Your task to perform on an android device: Open Google Chrome Image 0: 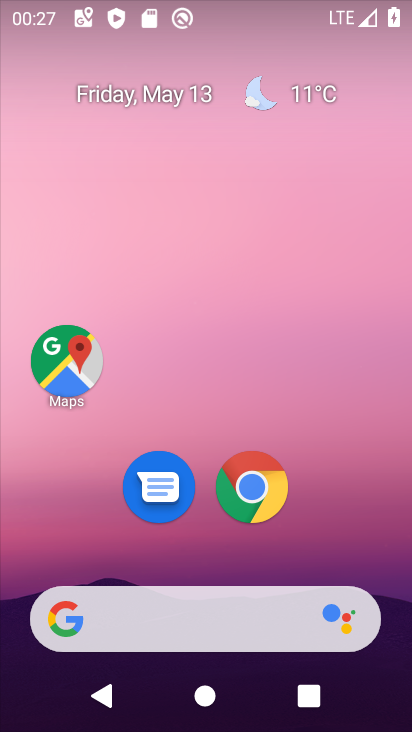
Step 0: click (261, 491)
Your task to perform on an android device: Open Google Chrome Image 1: 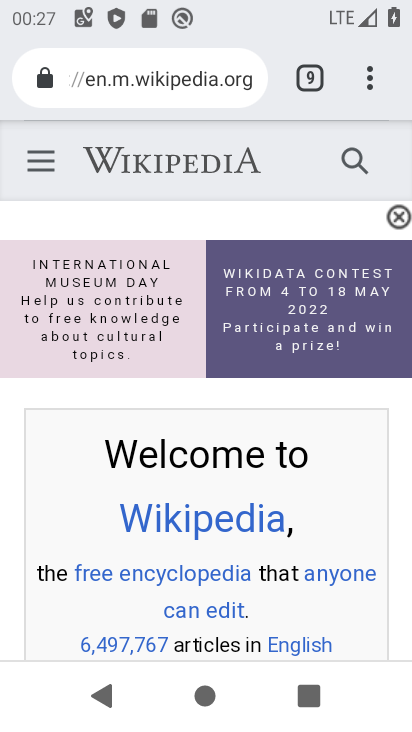
Step 1: task complete